Your task to perform on an android device: turn off data saver in the chrome app Image 0: 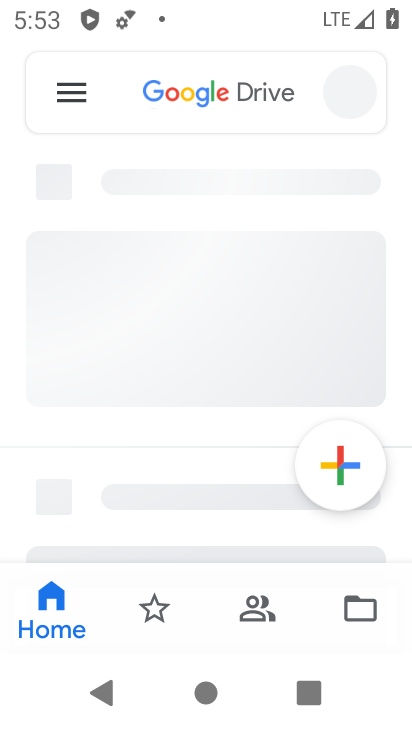
Step 0: press home button
Your task to perform on an android device: turn off data saver in the chrome app Image 1: 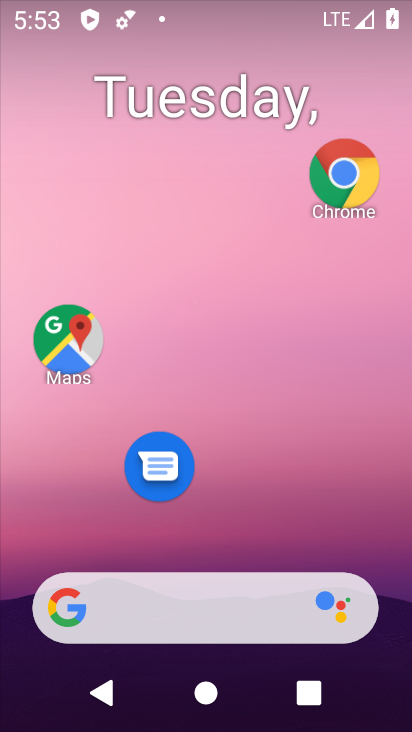
Step 1: click (355, 206)
Your task to perform on an android device: turn off data saver in the chrome app Image 2: 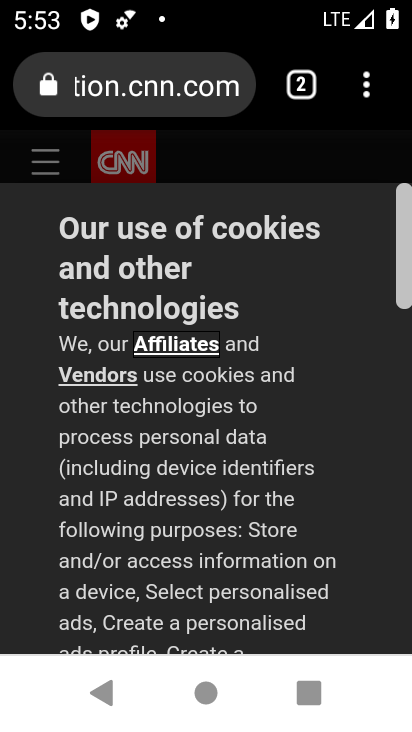
Step 2: drag from (355, 75) to (117, 498)
Your task to perform on an android device: turn off data saver in the chrome app Image 3: 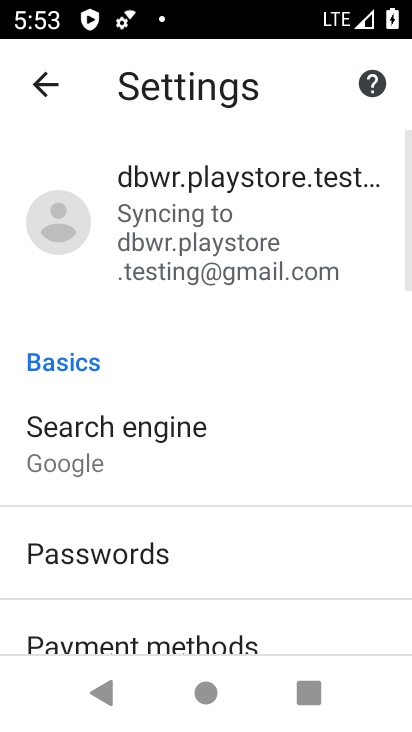
Step 3: drag from (223, 565) to (174, 73)
Your task to perform on an android device: turn off data saver in the chrome app Image 4: 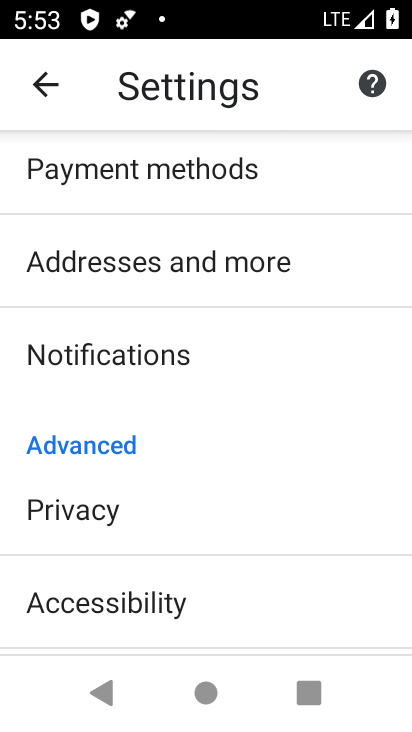
Step 4: drag from (274, 576) to (207, 259)
Your task to perform on an android device: turn off data saver in the chrome app Image 5: 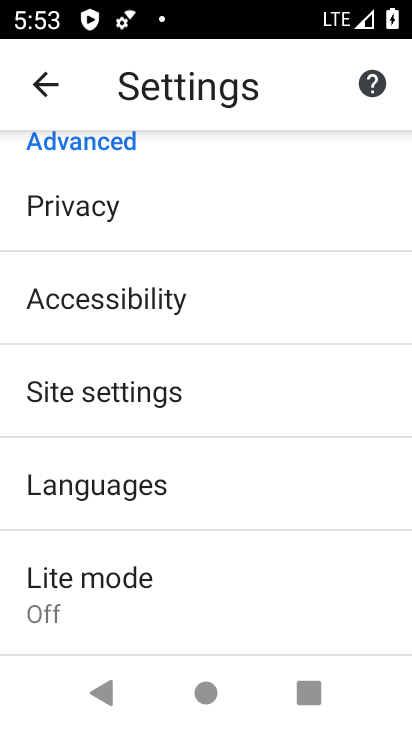
Step 5: drag from (269, 493) to (223, 261)
Your task to perform on an android device: turn off data saver in the chrome app Image 6: 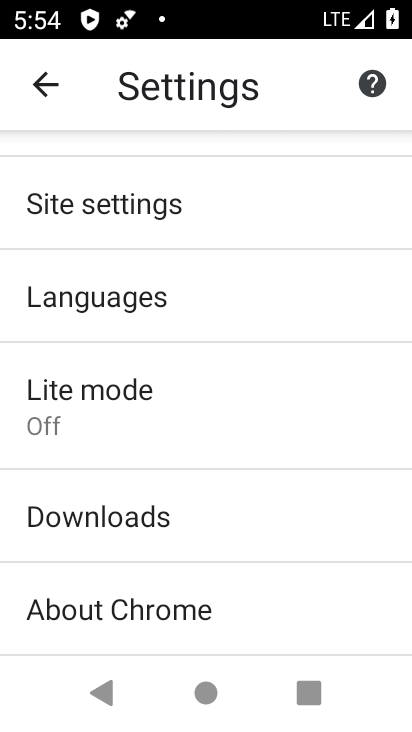
Step 6: click (95, 425)
Your task to perform on an android device: turn off data saver in the chrome app Image 7: 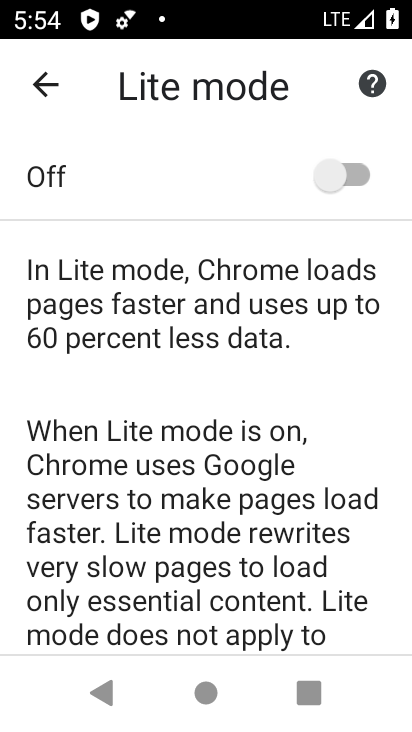
Step 7: task complete